Your task to perform on an android device: toggle javascript in the chrome app Image 0: 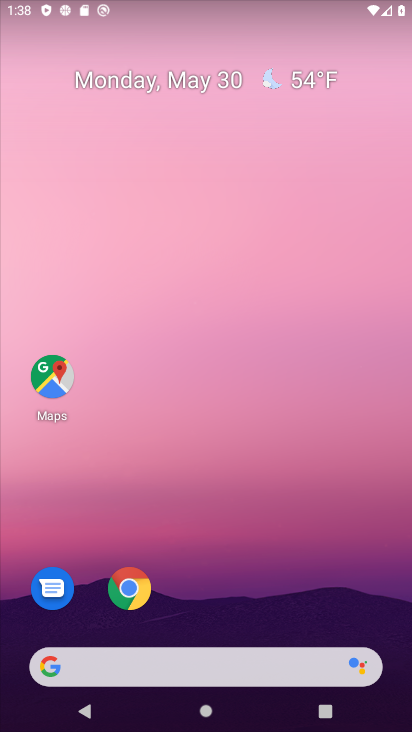
Step 0: click (126, 602)
Your task to perform on an android device: toggle javascript in the chrome app Image 1: 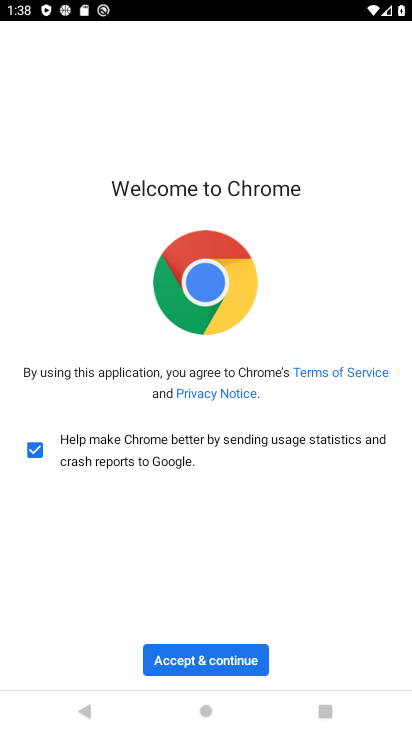
Step 1: click (251, 665)
Your task to perform on an android device: toggle javascript in the chrome app Image 2: 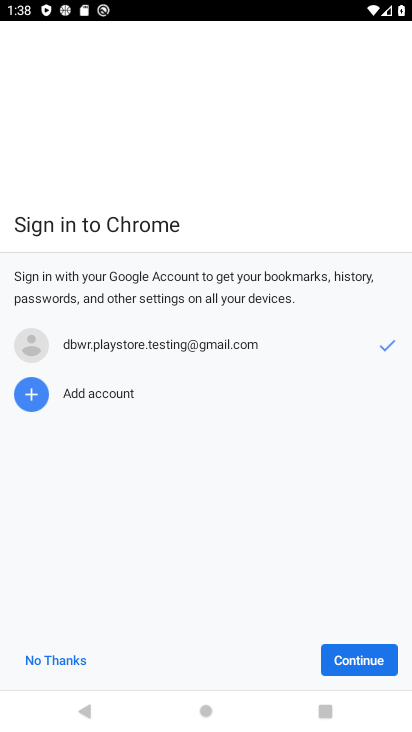
Step 2: click (390, 670)
Your task to perform on an android device: toggle javascript in the chrome app Image 3: 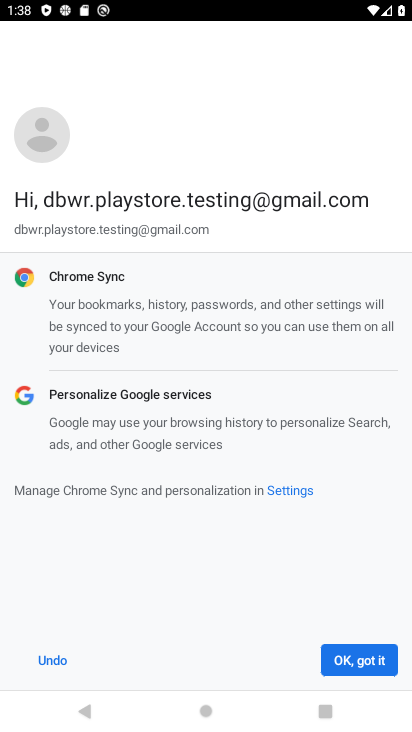
Step 3: click (389, 670)
Your task to perform on an android device: toggle javascript in the chrome app Image 4: 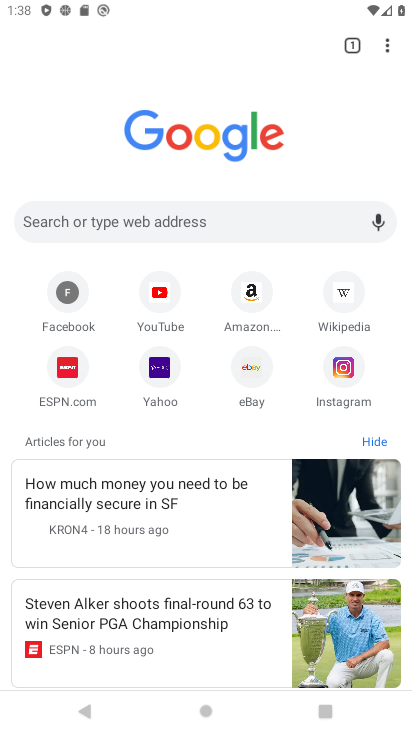
Step 4: drag from (405, 51) to (297, 387)
Your task to perform on an android device: toggle javascript in the chrome app Image 5: 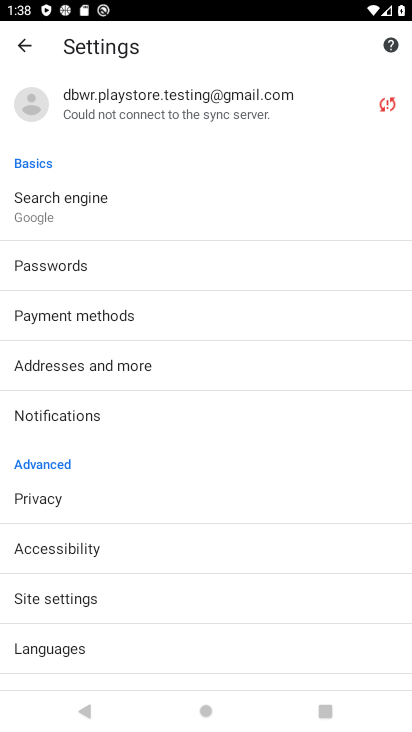
Step 5: drag from (181, 588) to (206, 438)
Your task to perform on an android device: toggle javascript in the chrome app Image 6: 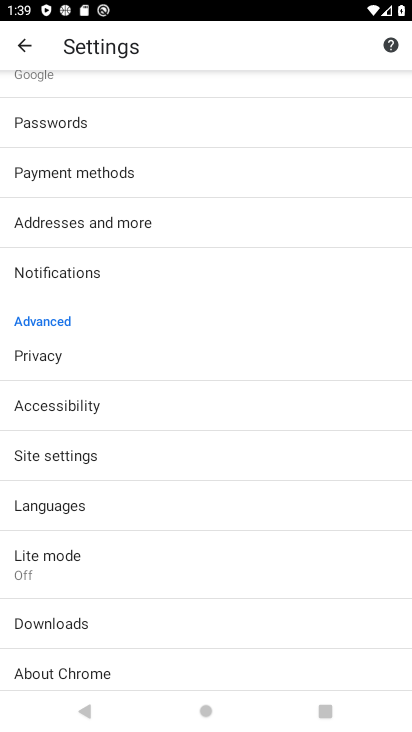
Step 6: click (157, 451)
Your task to perform on an android device: toggle javascript in the chrome app Image 7: 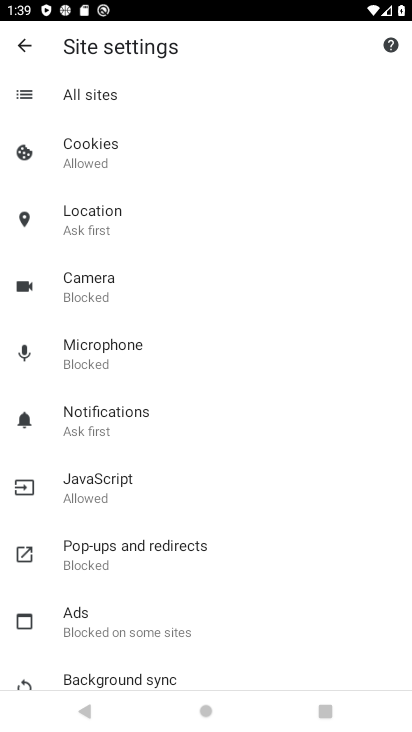
Step 7: click (141, 487)
Your task to perform on an android device: toggle javascript in the chrome app Image 8: 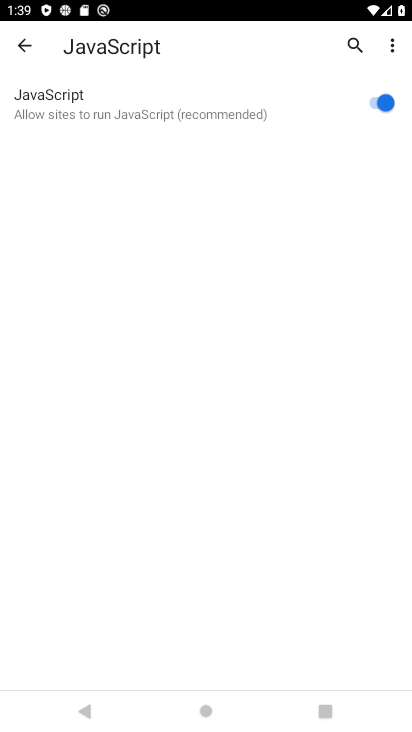
Step 8: click (377, 99)
Your task to perform on an android device: toggle javascript in the chrome app Image 9: 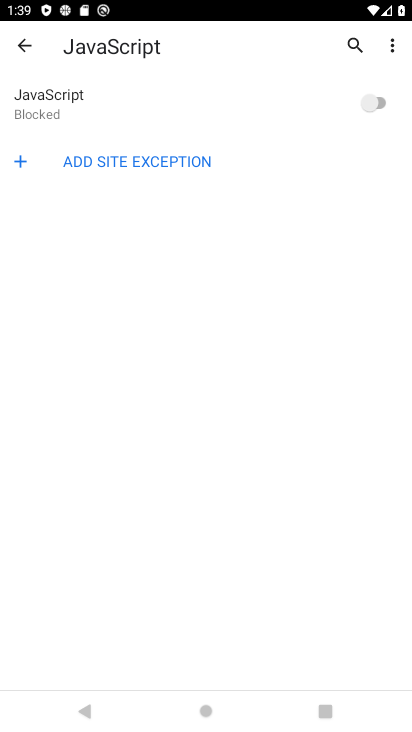
Step 9: task complete